Your task to perform on an android device: allow cookies in the chrome app Image 0: 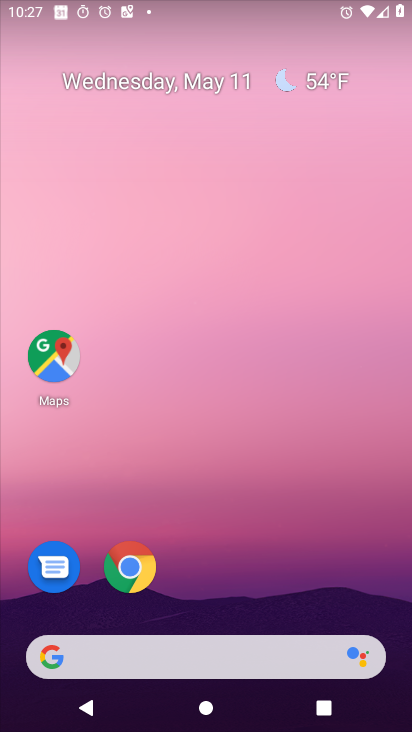
Step 0: press home button
Your task to perform on an android device: allow cookies in the chrome app Image 1: 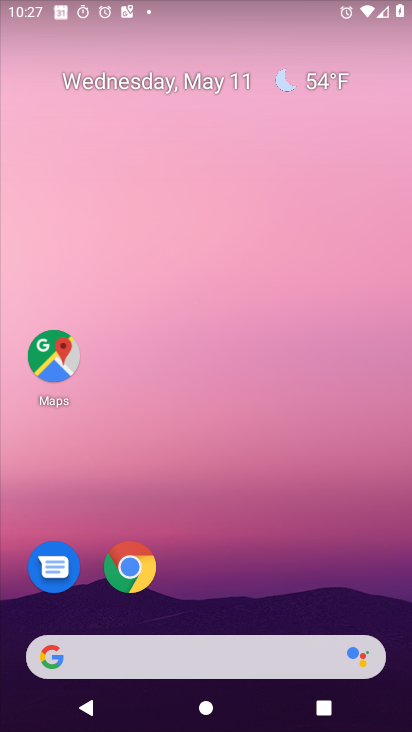
Step 1: click (134, 587)
Your task to perform on an android device: allow cookies in the chrome app Image 2: 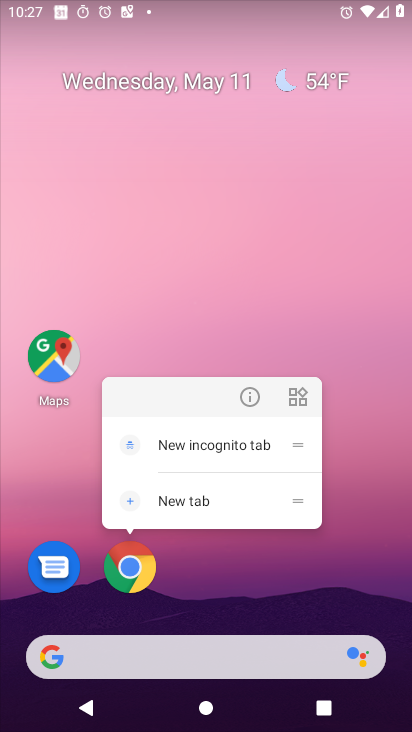
Step 2: click (123, 565)
Your task to perform on an android device: allow cookies in the chrome app Image 3: 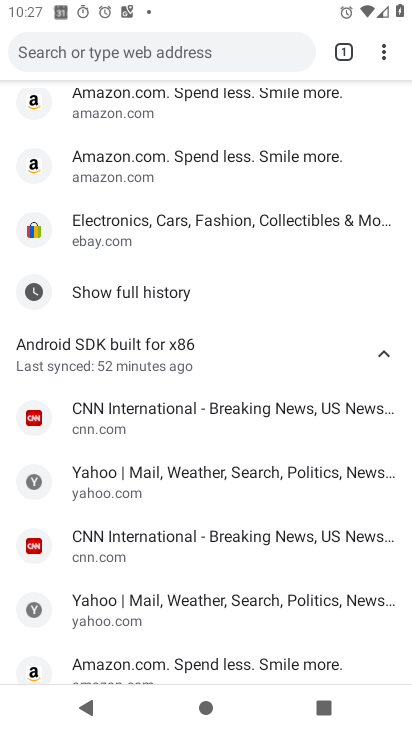
Step 3: click (386, 54)
Your task to perform on an android device: allow cookies in the chrome app Image 4: 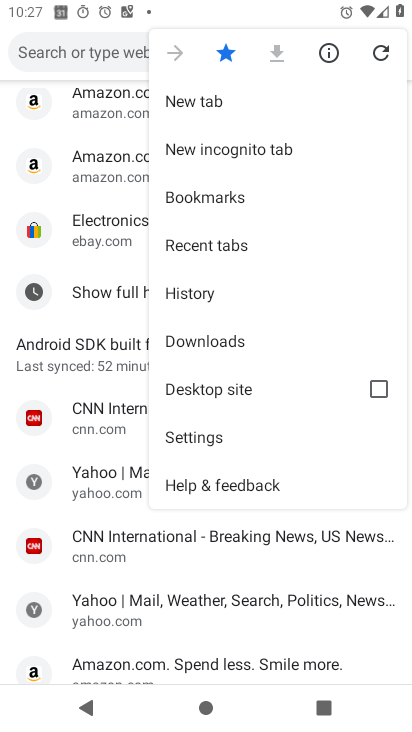
Step 4: click (206, 436)
Your task to perform on an android device: allow cookies in the chrome app Image 5: 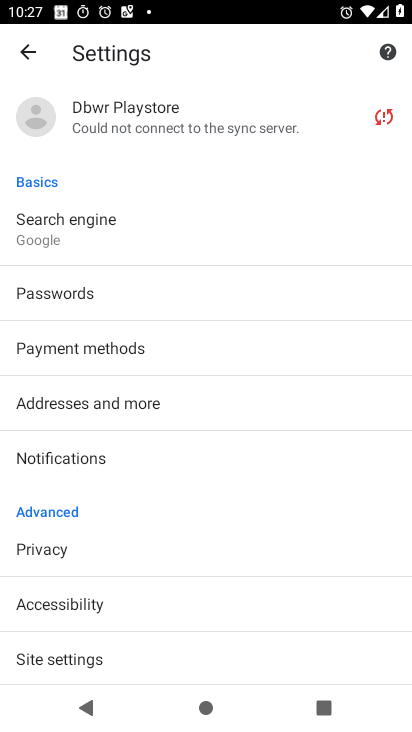
Step 5: click (60, 652)
Your task to perform on an android device: allow cookies in the chrome app Image 6: 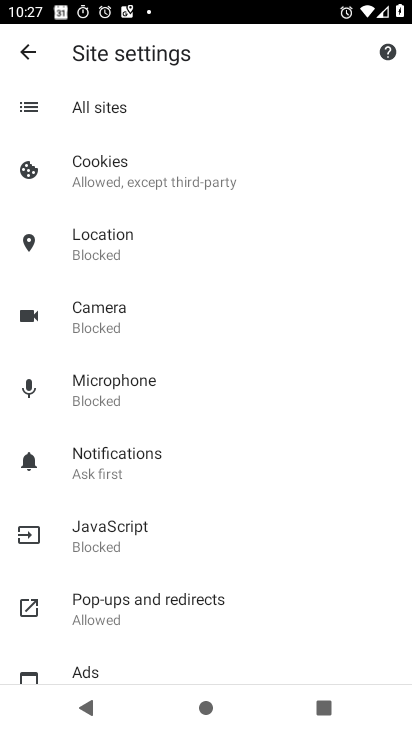
Step 6: click (171, 179)
Your task to perform on an android device: allow cookies in the chrome app Image 7: 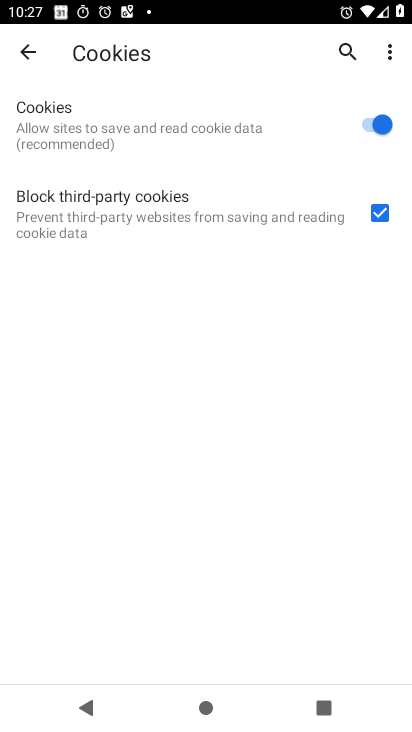
Step 7: task complete